Your task to perform on an android device: turn on the 12-hour format for clock Image 0: 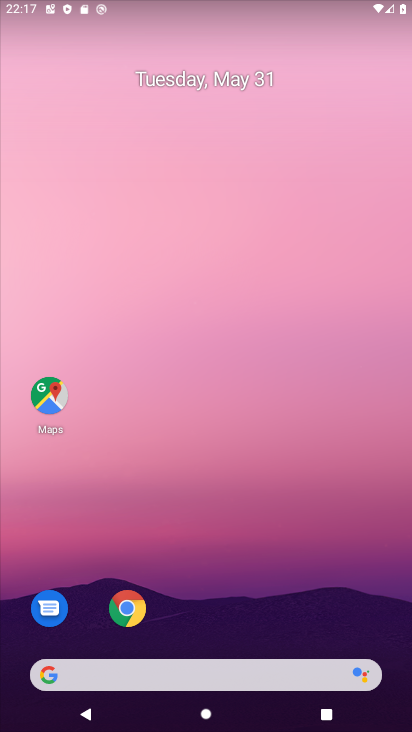
Step 0: drag from (192, 640) to (276, 19)
Your task to perform on an android device: turn on the 12-hour format for clock Image 1: 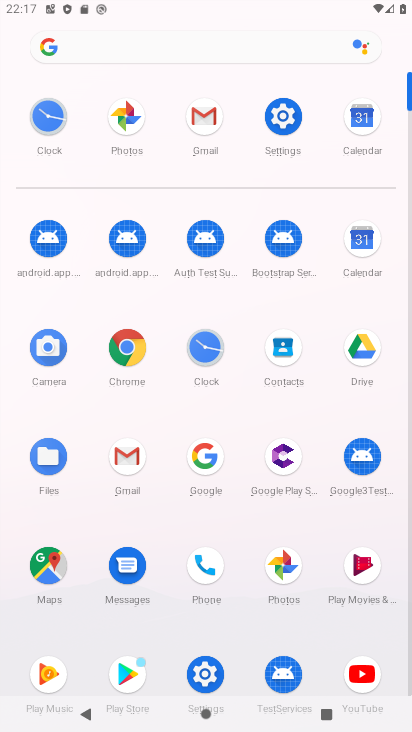
Step 1: click (192, 332)
Your task to perform on an android device: turn on the 12-hour format for clock Image 2: 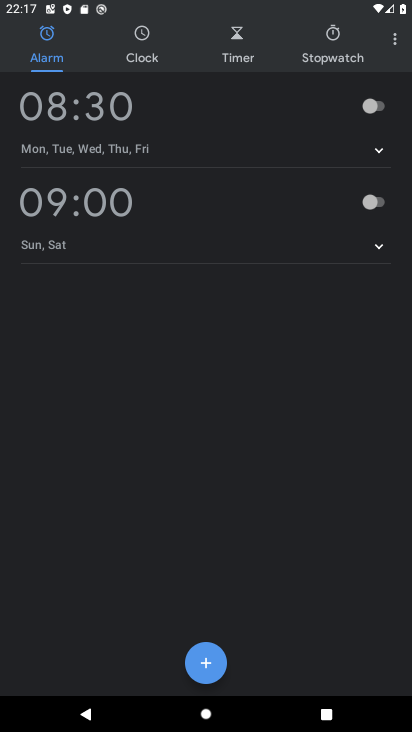
Step 2: click (393, 39)
Your task to perform on an android device: turn on the 12-hour format for clock Image 3: 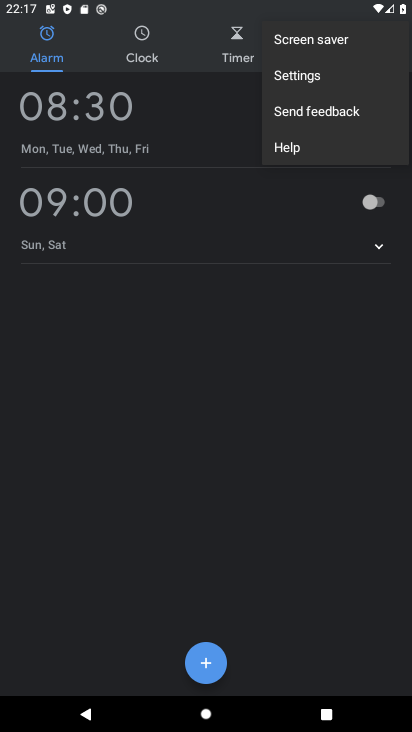
Step 3: click (294, 85)
Your task to perform on an android device: turn on the 12-hour format for clock Image 4: 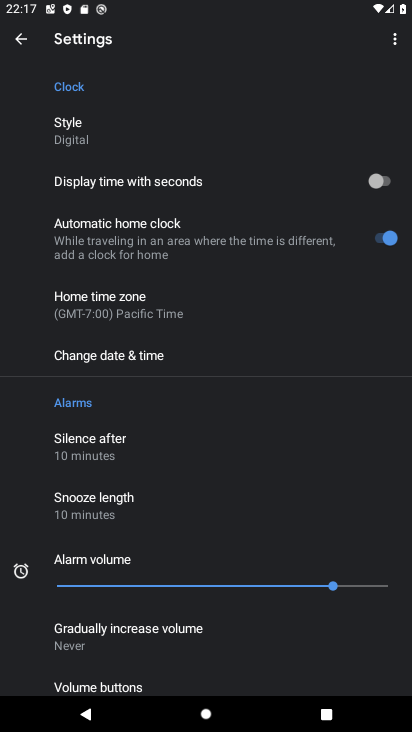
Step 4: click (107, 350)
Your task to perform on an android device: turn on the 12-hour format for clock Image 5: 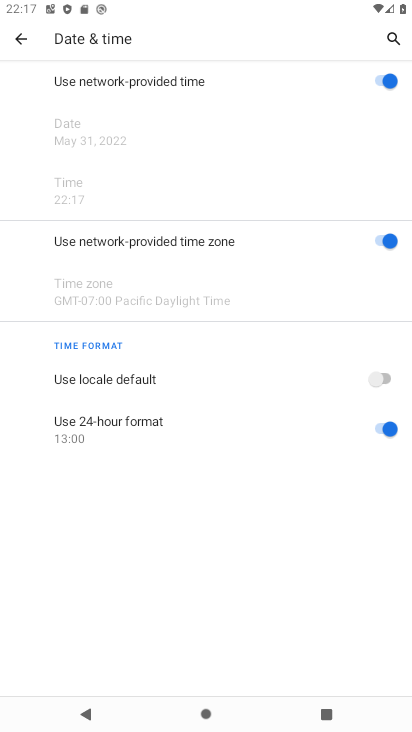
Step 5: click (380, 423)
Your task to perform on an android device: turn on the 12-hour format for clock Image 6: 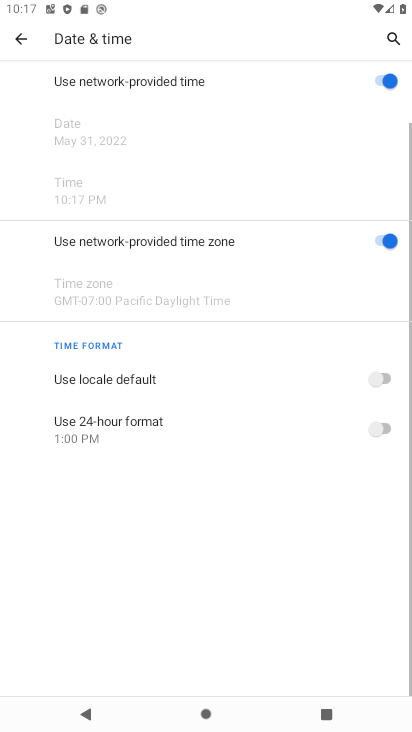
Step 6: task complete